Your task to perform on an android device: clear history in the chrome app Image 0: 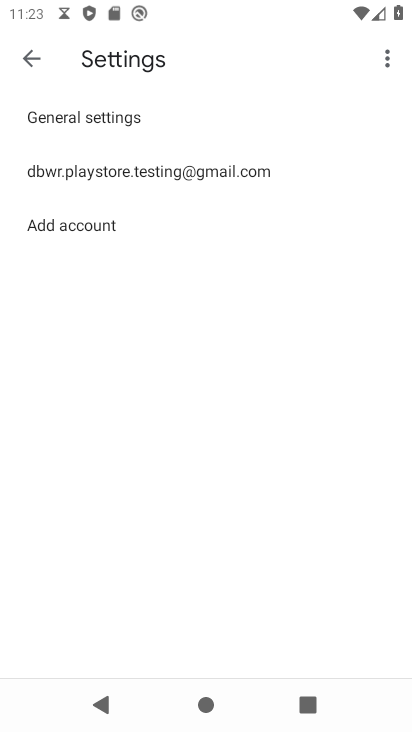
Step 0: press home button
Your task to perform on an android device: clear history in the chrome app Image 1: 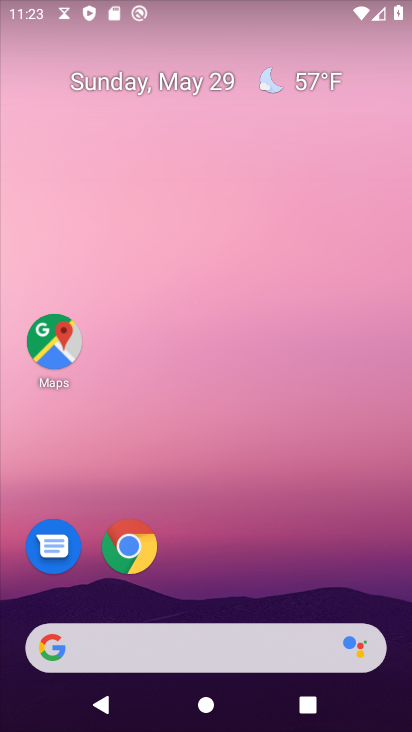
Step 1: click (132, 553)
Your task to perform on an android device: clear history in the chrome app Image 2: 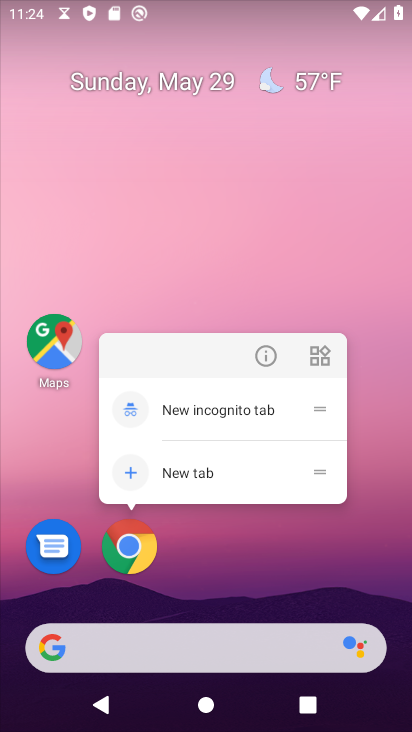
Step 2: click (132, 548)
Your task to perform on an android device: clear history in the chrome app Image 3: 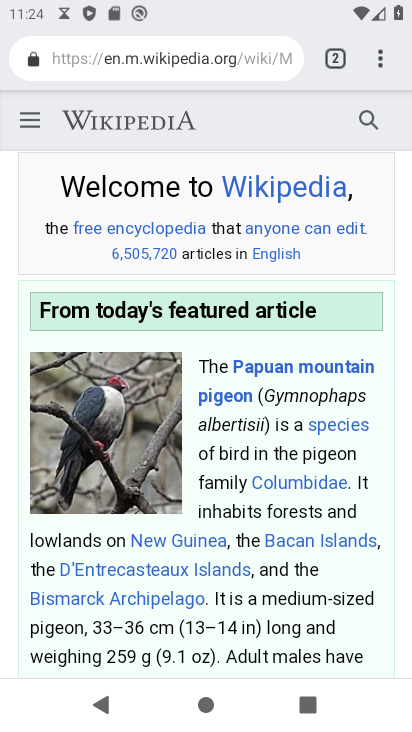
Step 3: drag from (377, 58) to (197, 333)
Your task to perform on an android device: clear history in the chrome app Image 4: 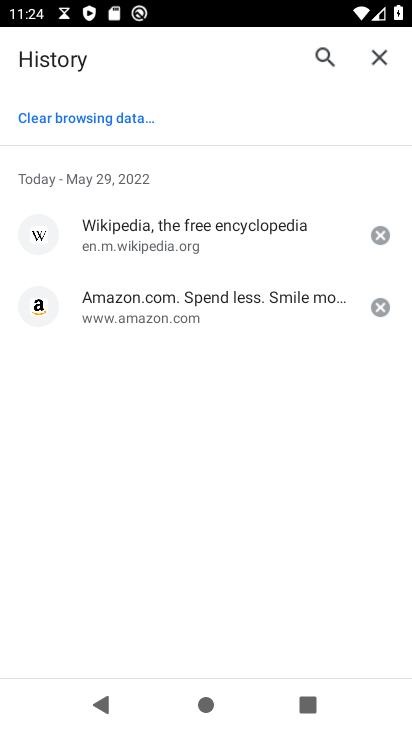
Step 4: click (121, 116)
Your task to perform on an android device: clear history in the chrome app Image 5: 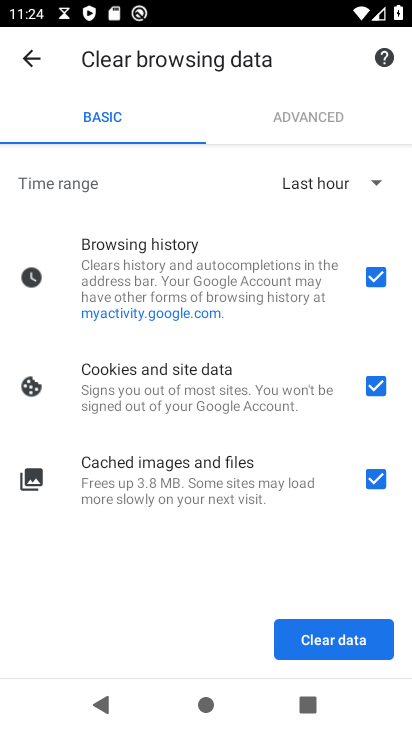
Step 5: click (375, 178)
Your task to perform on an android device: clear history in the chrome app Image 6: 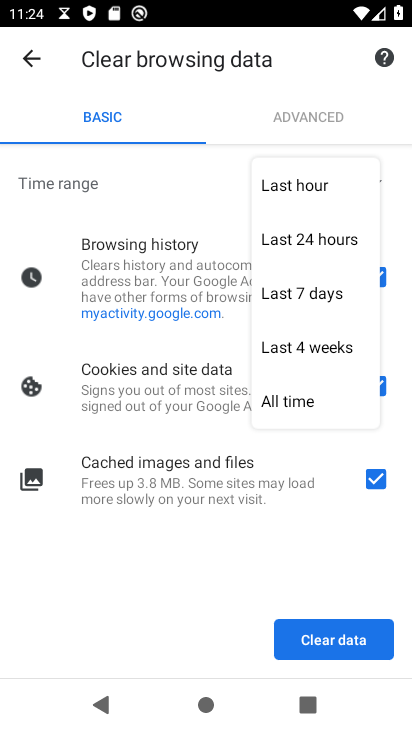
Step 6: click (302, 402)
Your task to perform on an android device: clear history in the chrome app Image 7: 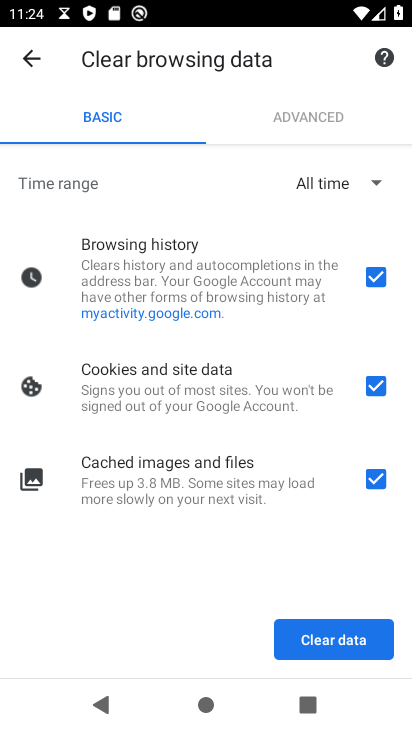
Step 7: click (344, 640)
Your task to perform on an android device: clear history in the chrome app Image 8: 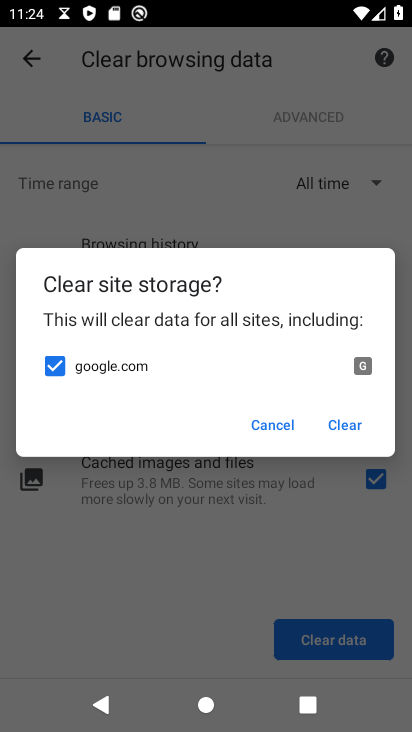
Step 8: click (336, 423)
Your task to perform on an android device: clear history in the chrome app Image 9: 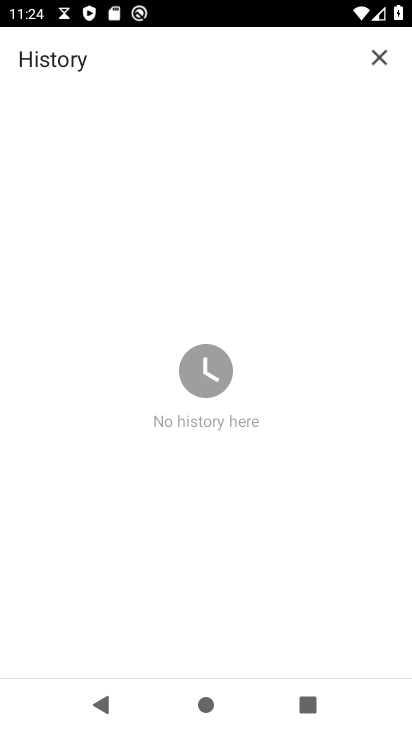
Step 9: task complete